Your task to perform on an android device: Open internet settings Image 0: 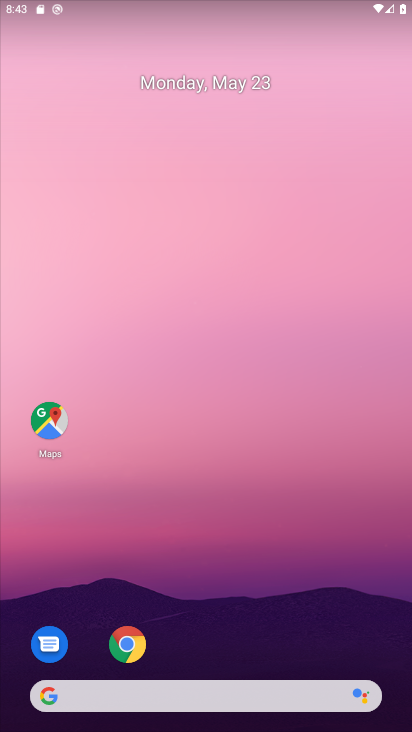
Step 0: drag from (334, 534) to (333, 104)
Your task to perform on an android device: Open internet settings Image 1: 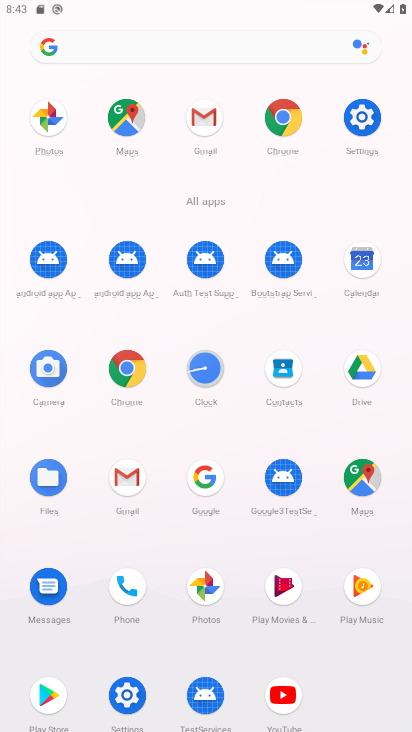
Step 1: click (373, 116)
Your task to perform on an android device: Open internet settings Image 2: 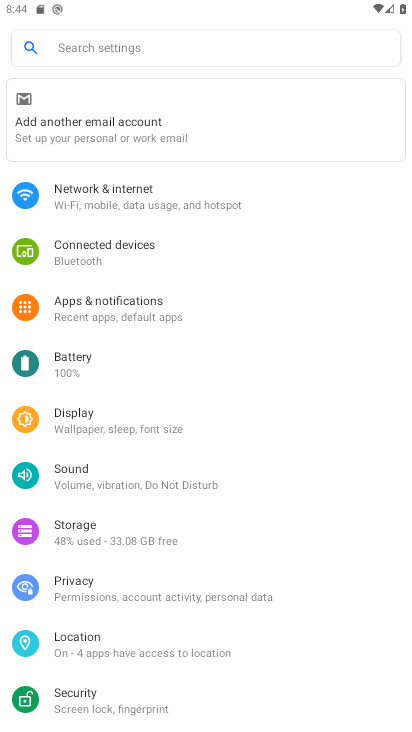
Step 2: click (157, 195)
Your task to perform on an android device: Open internet settings Image 3: 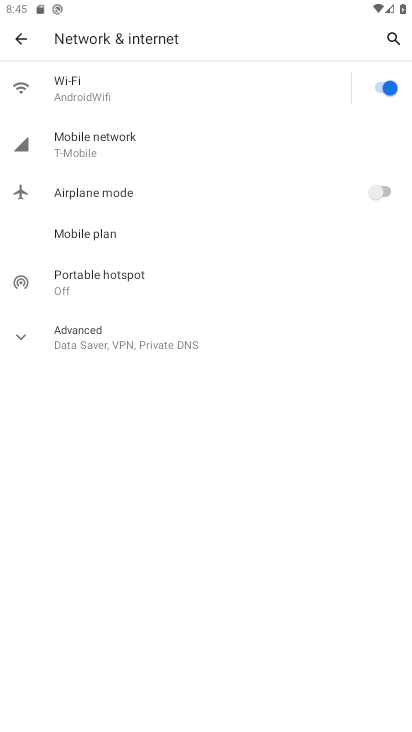
Step 3: task complete